Your task to perform on an android device: Add bose quietcomfort 35 to the cart on amazon.com Image 0: 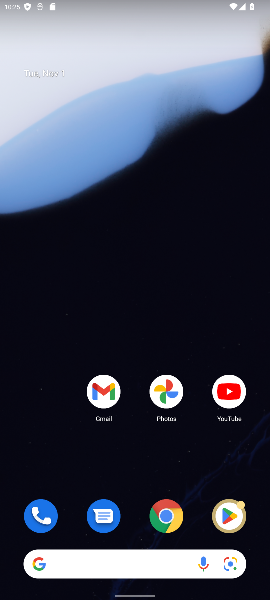
Step 0: click (163, 526)
Your task to perform on an android device: Add bose quietcomfort 35 to the cart on amazon.com Image 1: 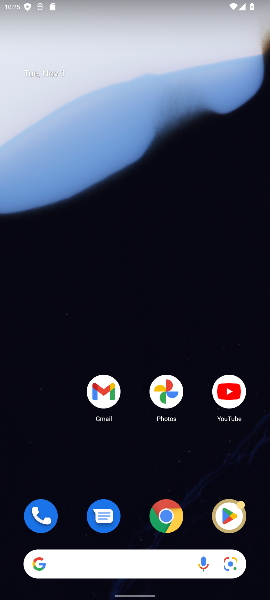
Step 1: click (163, 526)
Your task to perform on an android device: Add bose quietcomfort 35 to the cart on amazon.com Image 2: 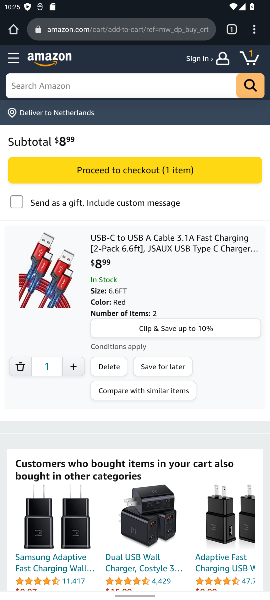
Step 2: click (73, 87)
Your task to perform on an android device: Add bose quietcomfort 35 to the cart on amazon.com Image 3: 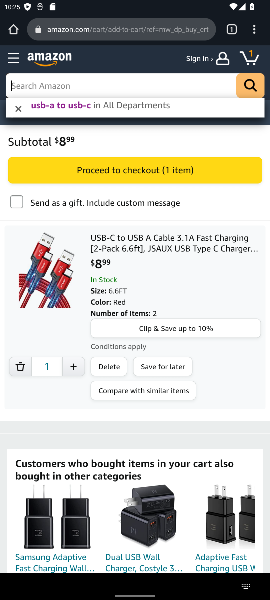
Step 3: type "bose quietcomfort 35"
Your task to perform on an android device: Add bose quietcomfort 35 to the cart on amazon.com Image 4: 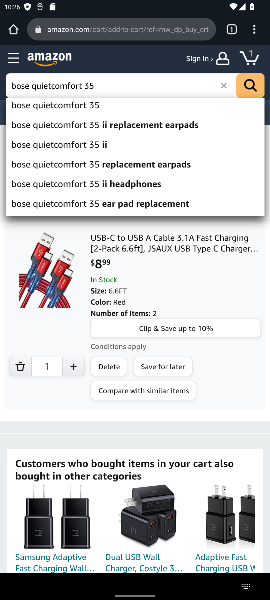
Step 4: click (82, 102)
Your task to perform on an android device: Add bose quietcomfort 35 to the cart on amazon.com Image 5: 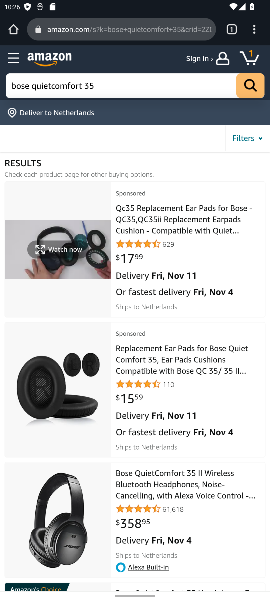
Step 5: click (179, 207)
Your task to perform on an android device: Add bose quietcomfort 35 to the cart on amazon.com Image 6: 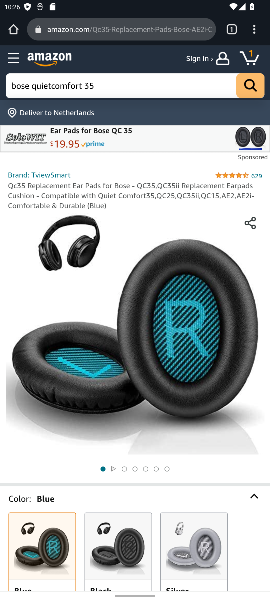
Step 6: drag from (203, 475) to (213, 81)
Your task to perform on an android device: Add bose quietcomfort 35 to the cart on amazon.com Image 7: 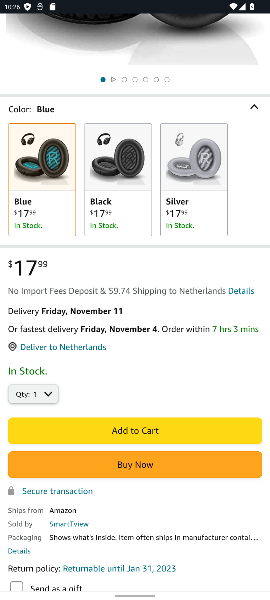
Step 7: click (141, 431)
Your task to perform on an android device: Add bose quietcomfort 35 to the cart on amazon.com Image 8: 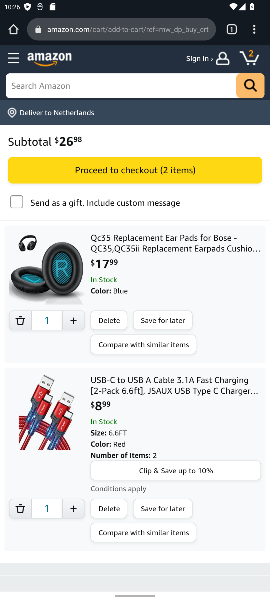
Step 8: task complete